Your task to perform on an android device: What's the news in Brazil? Image 0: 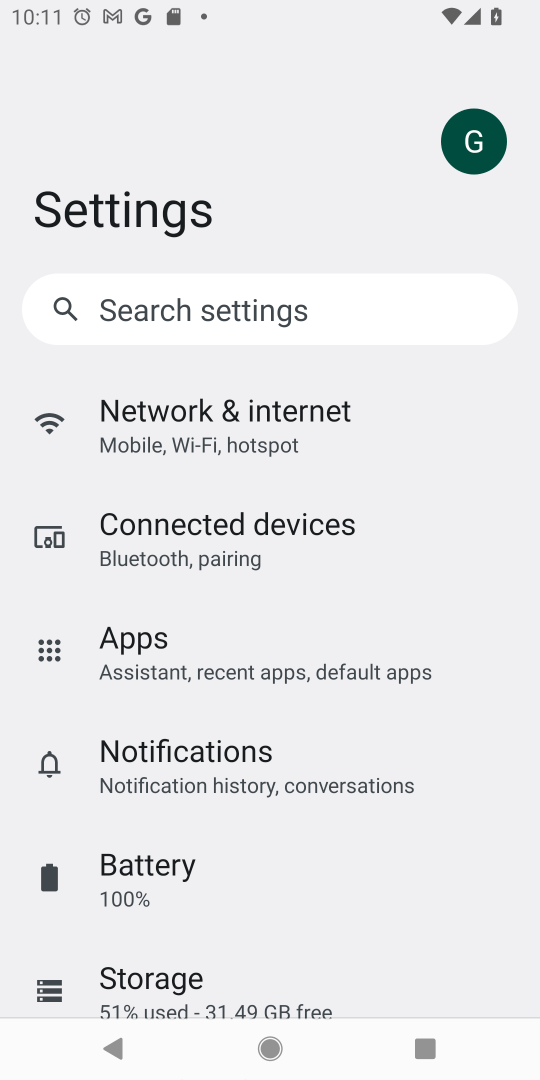
Step 0: press home button
Your task to perform on an android device: What's the news in Brazil? Image 1: 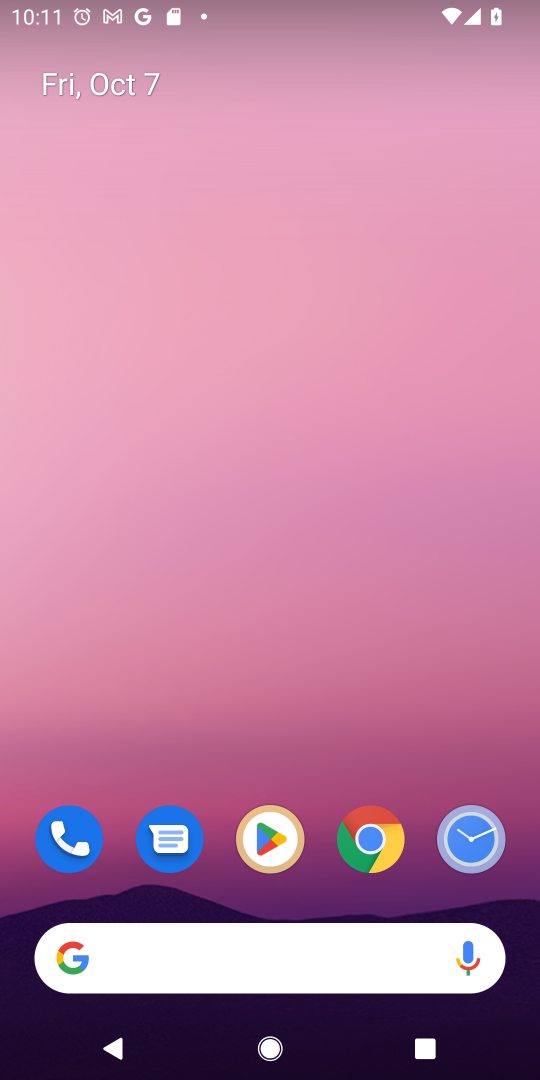
Step 1: click (382, 845)
Your task to perform on an android device: What's the news in Brazil? Image 2: 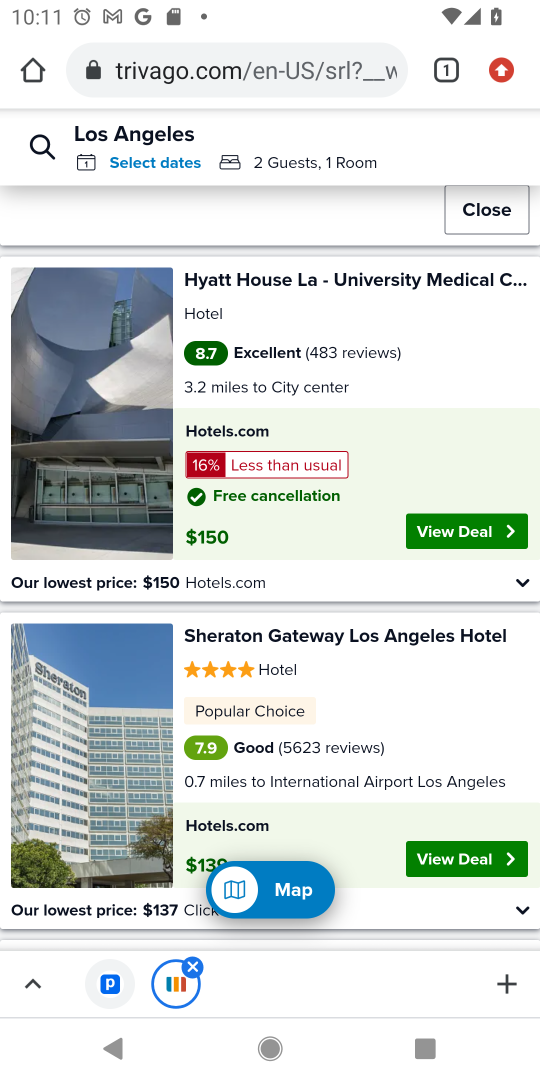
Step 2: click (199, 69)
Your task to perform on an android device: What's the news in Brazil? Image 3: 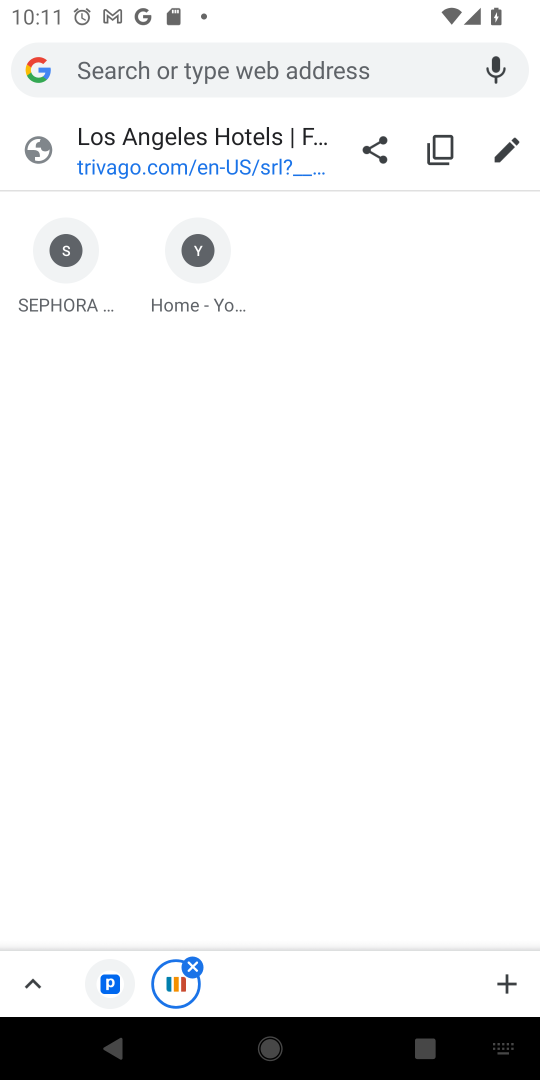
Step 3: type "news in brazil"
Your task to perform on an android device: What's the news in Brazil? Image 4: 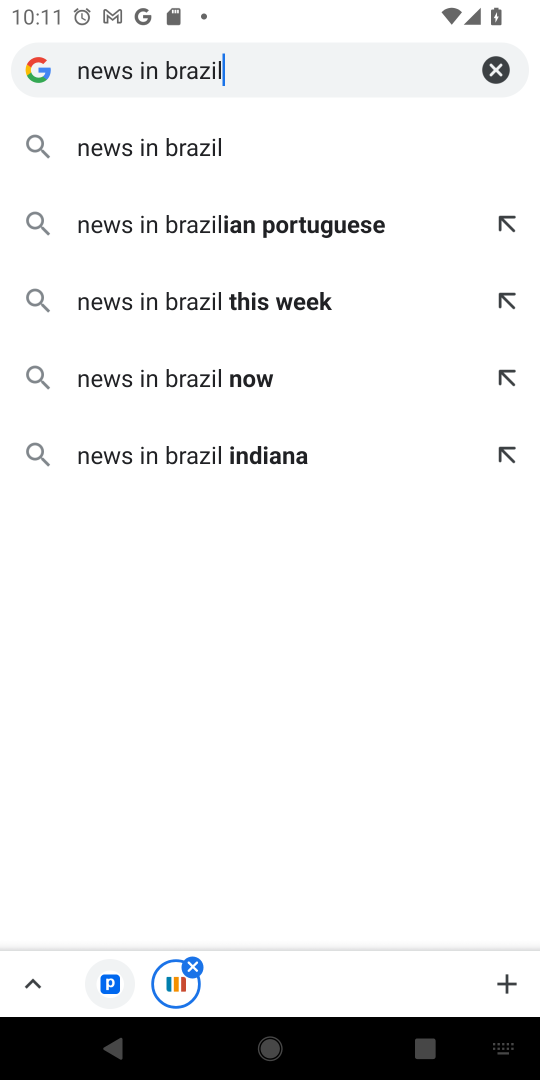
Step 4: click (208, 144)
Your task to perform on an android device: What's the news in Brazil? Image 5: 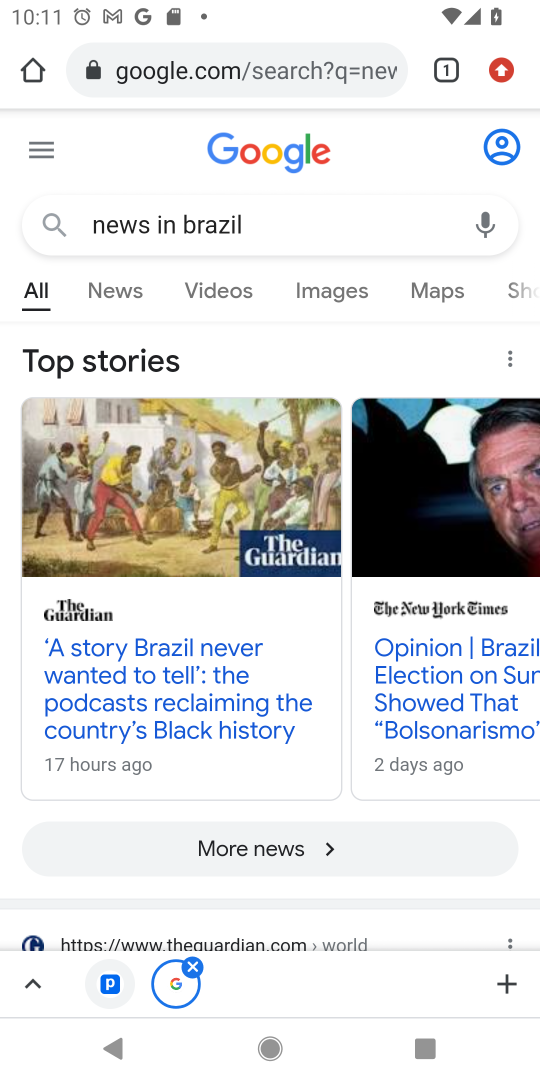
Step 5: drag from (224, 681) to (326, 297)
Your task to perform on an android device: What's the news in Brazil? Image 6: 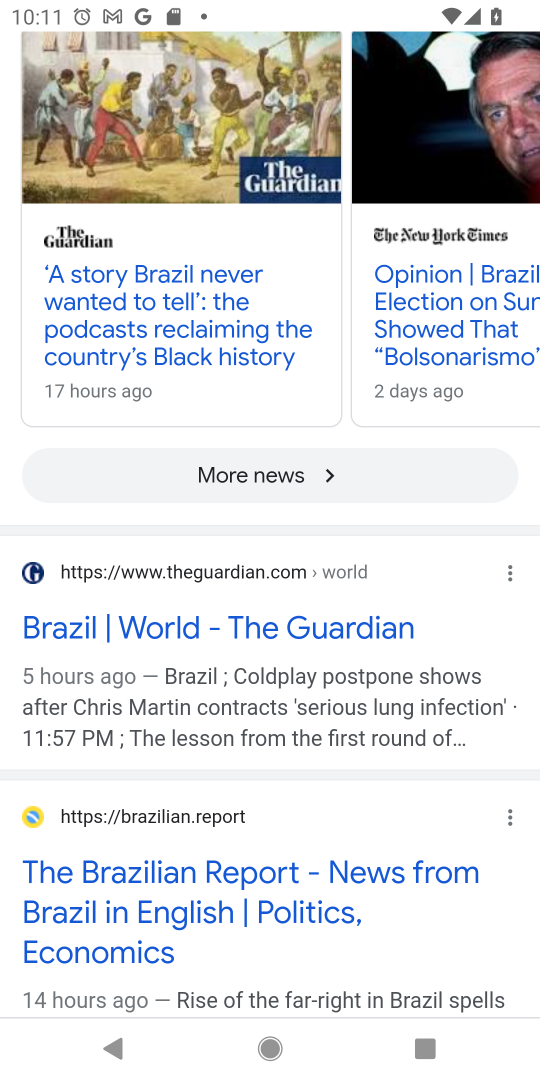
Step 6: click (76, 629)
Your task to perform on an android device: What's the news in Brazil? Image 7: 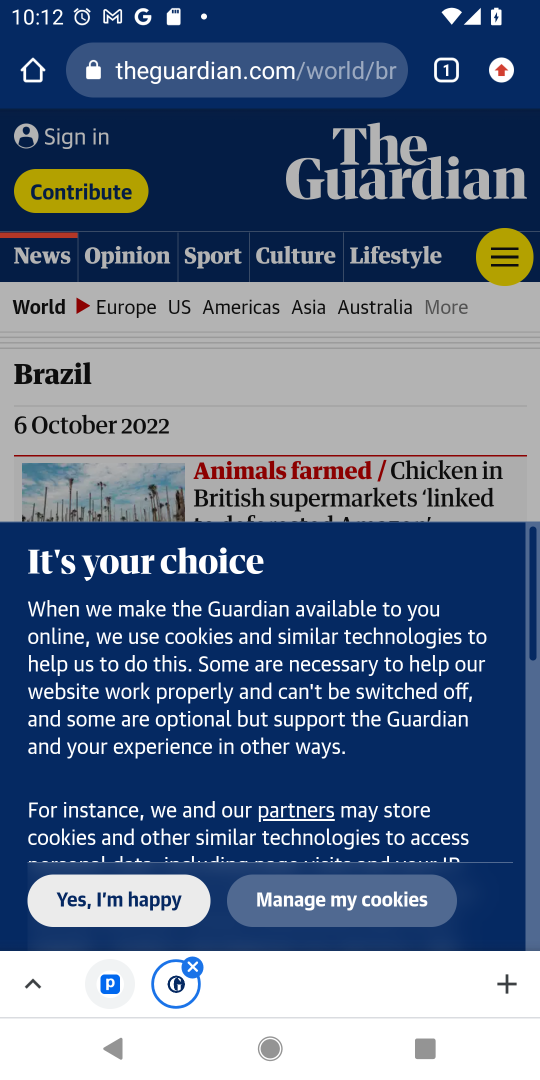
Step 7: drag from (321, 488) to (401, 296)
Your task to perform on an android device: What's the news in Brazil? Image 8: 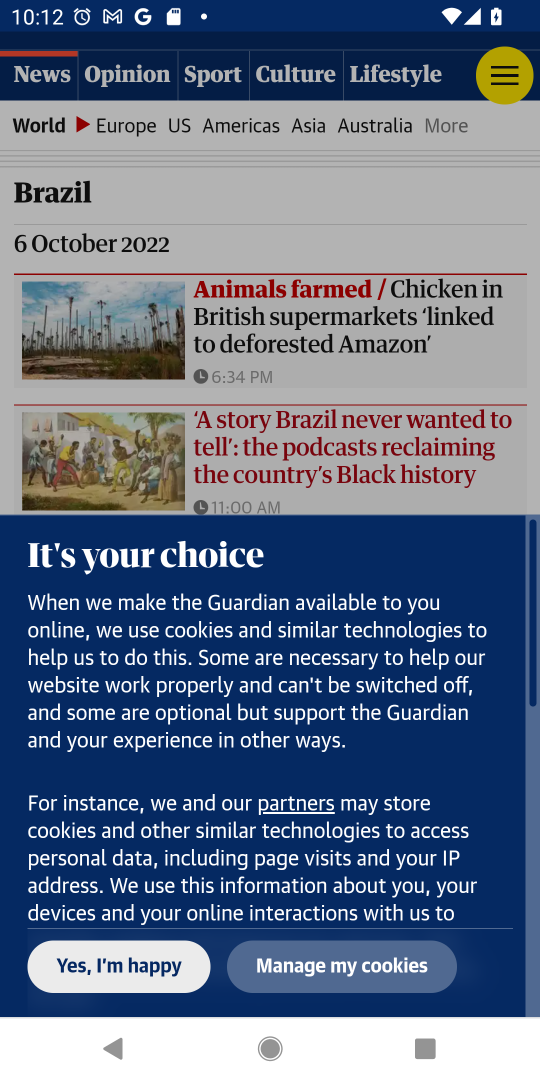
Step 8: drag from (250, 375) to (277, 555)
Your task to perform on an android device: What's the news in Brazil? Image 9: 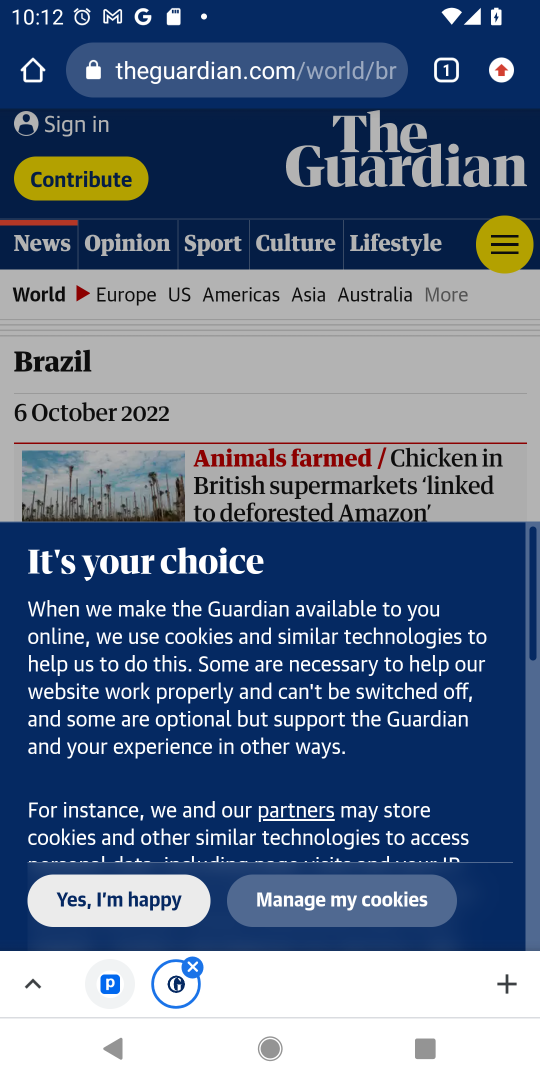
Step 9: click (50, 252)
Your task to perform on an android device: What's the news in Brazil? Image 10: 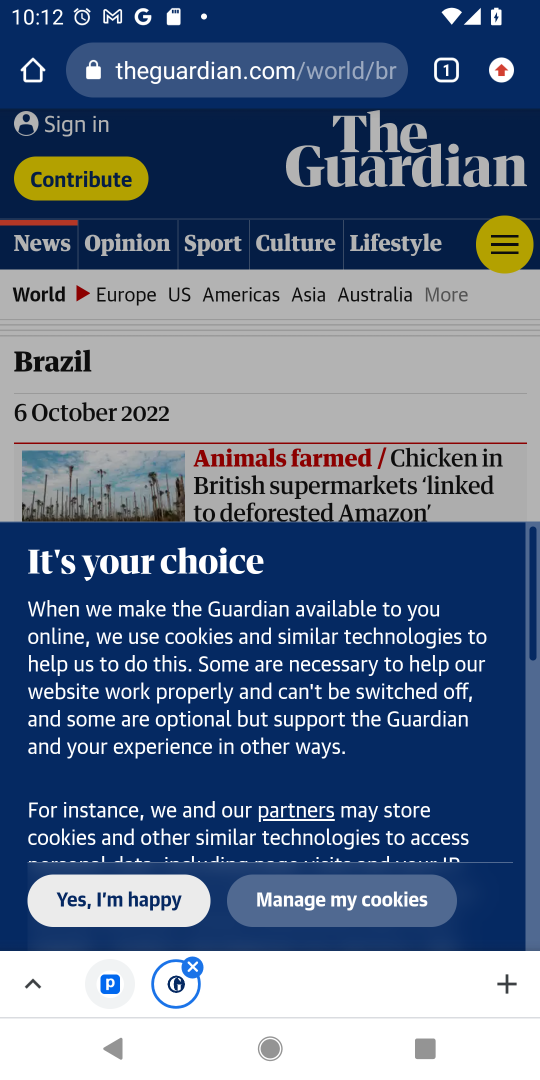
Step 10: drag from (235, 367) to (278, 193)
Your task to perform on an android device: What's the news in Brazil? Image 11: 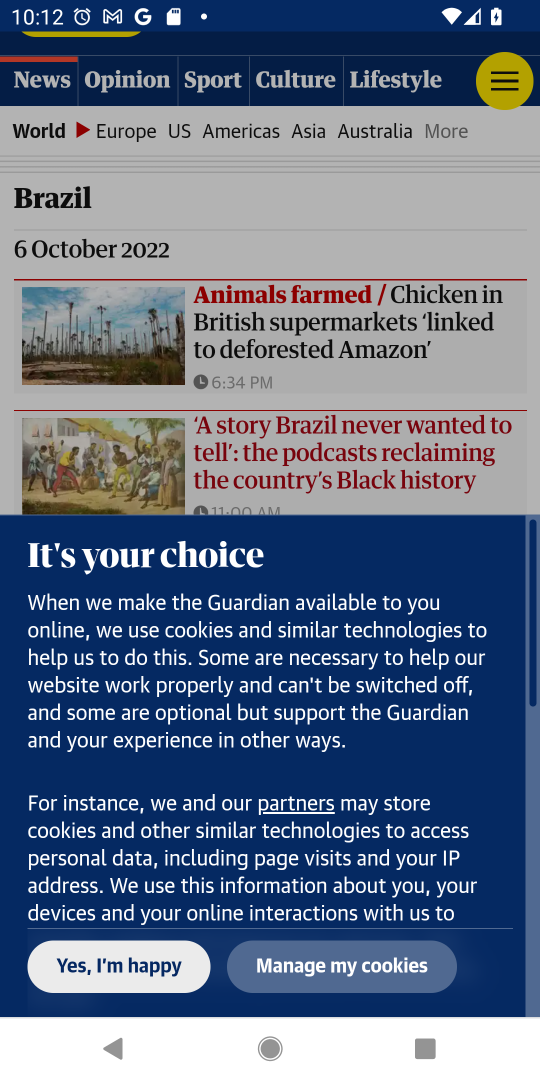
Step 11: click (339, 208)
Your task to perform on an android device: What's the news in Brazil? Image 12: 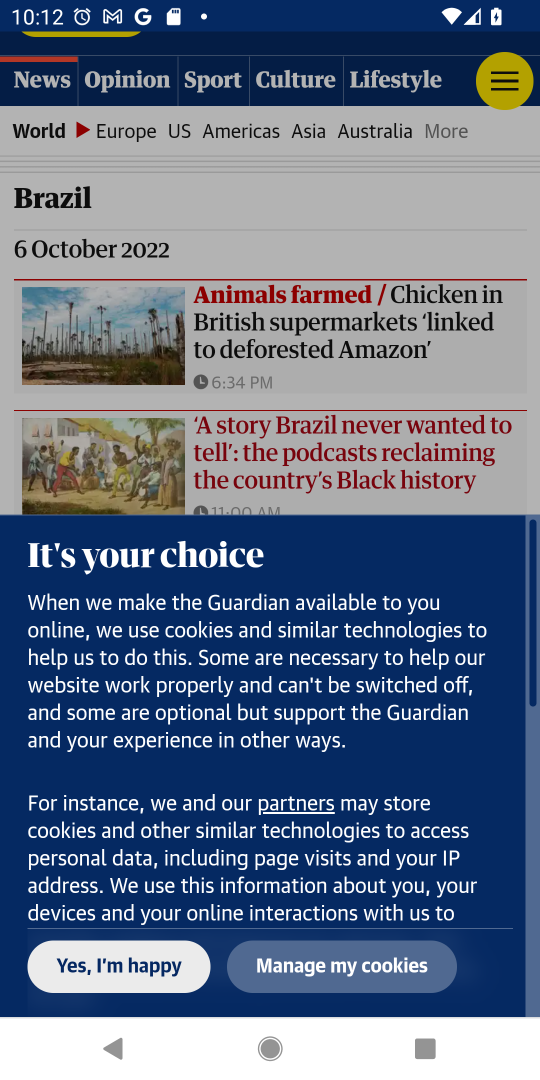
Step 12: task complete